Your task to perform on an android device: Search for sushi restaurants on Maps Image 0: 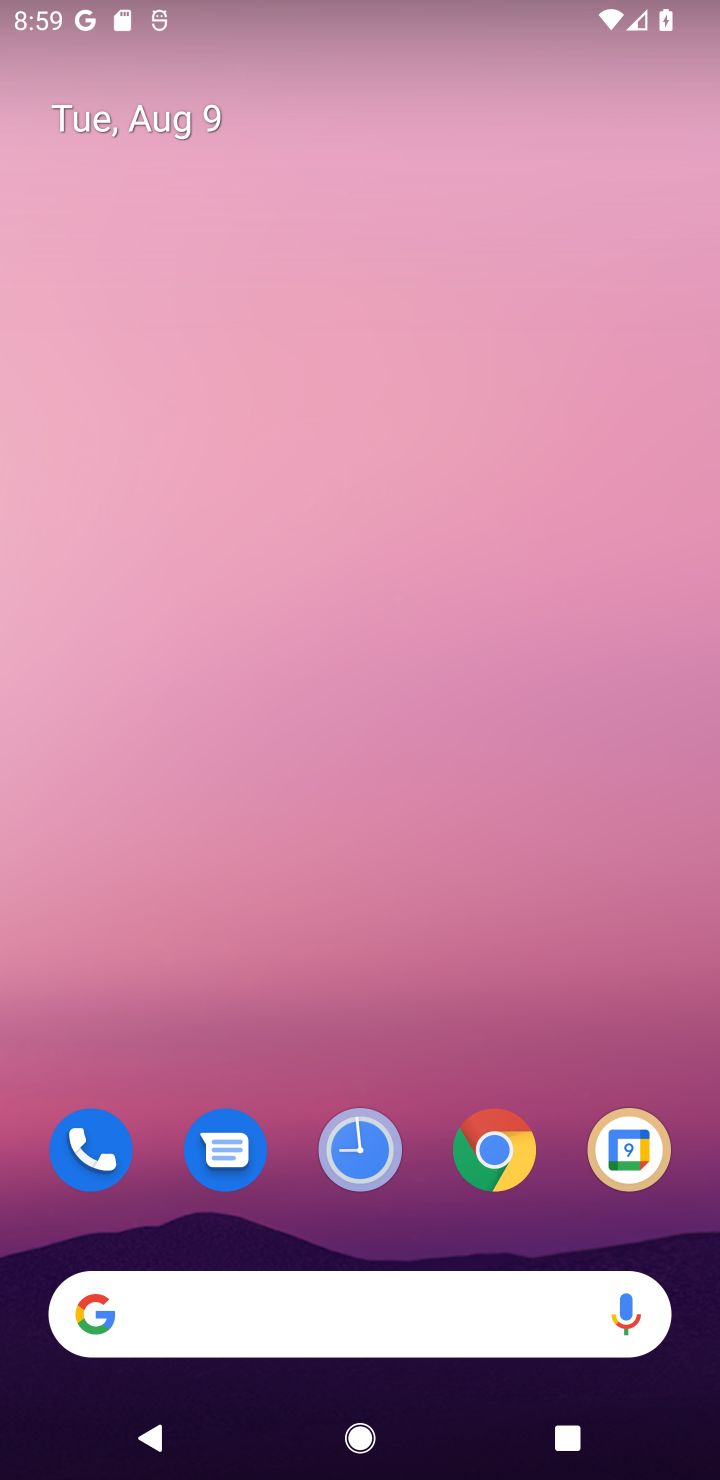
Step 0: drag from (193, 674) to (2, 776)
Your task to perform on an android device: Search for sushi restaurants on Maps Image 1: 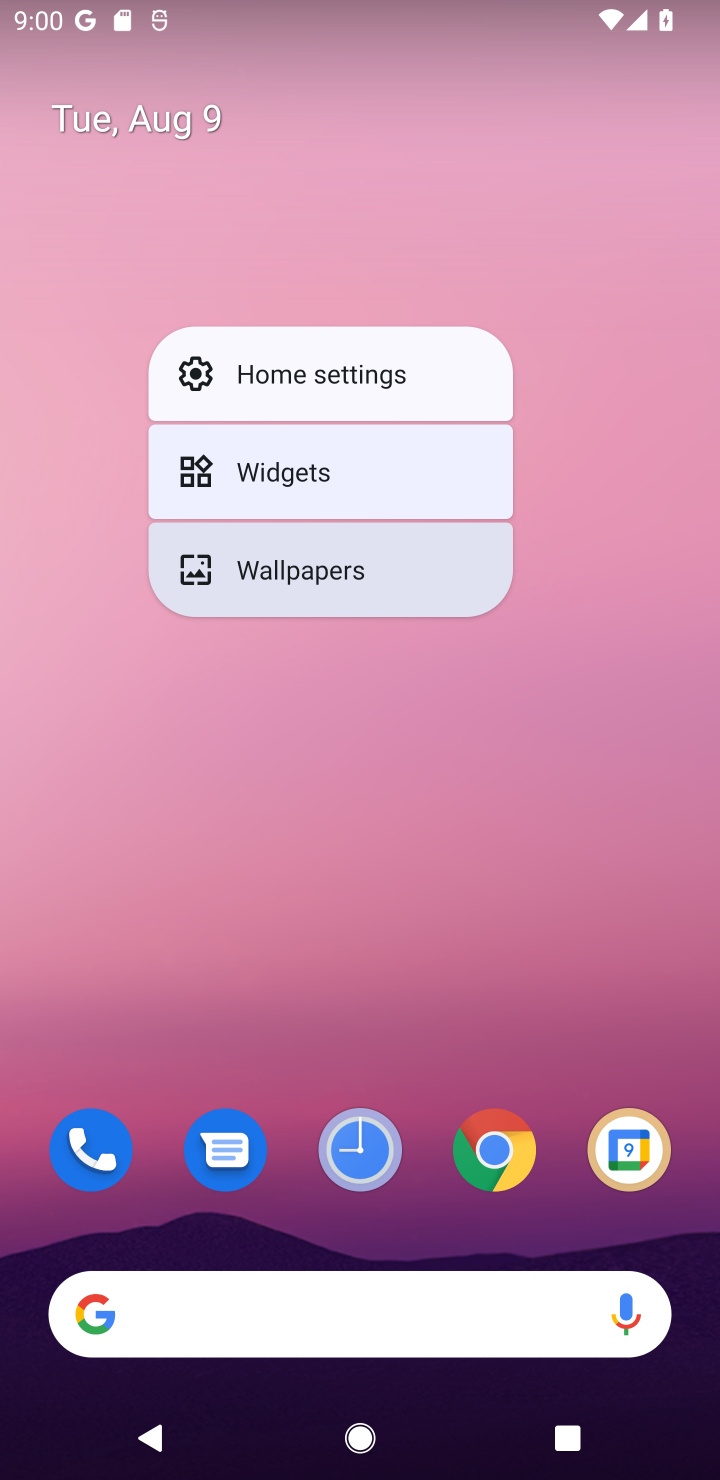
Step 1: drag from (320, 757) to (395, 60)
Your task to perform on an android device: Search for sushi restaurants on Maps Image 2: 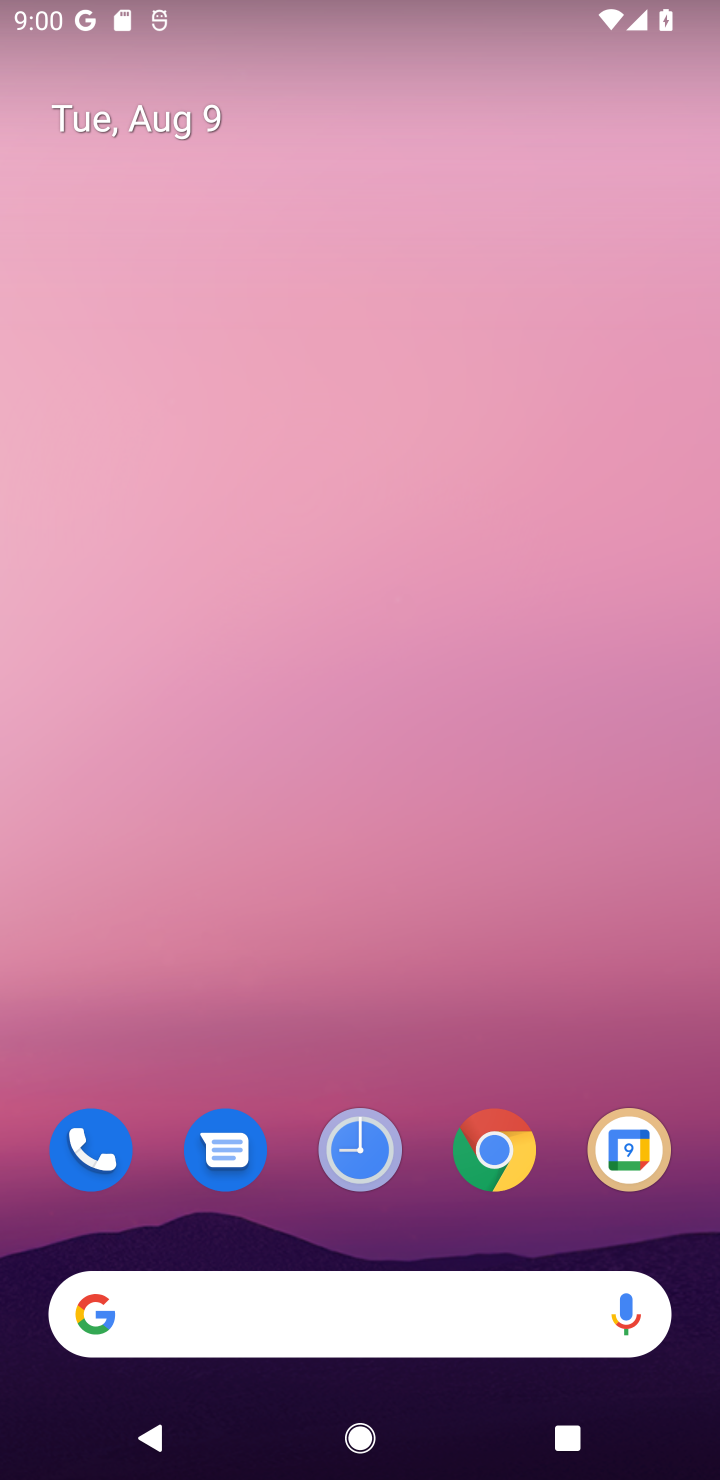
Step 2: drag from (478, 1136) to (585, 20)
Your task to perform on an android device: Search for sushi restaurants on Maps Image 3: 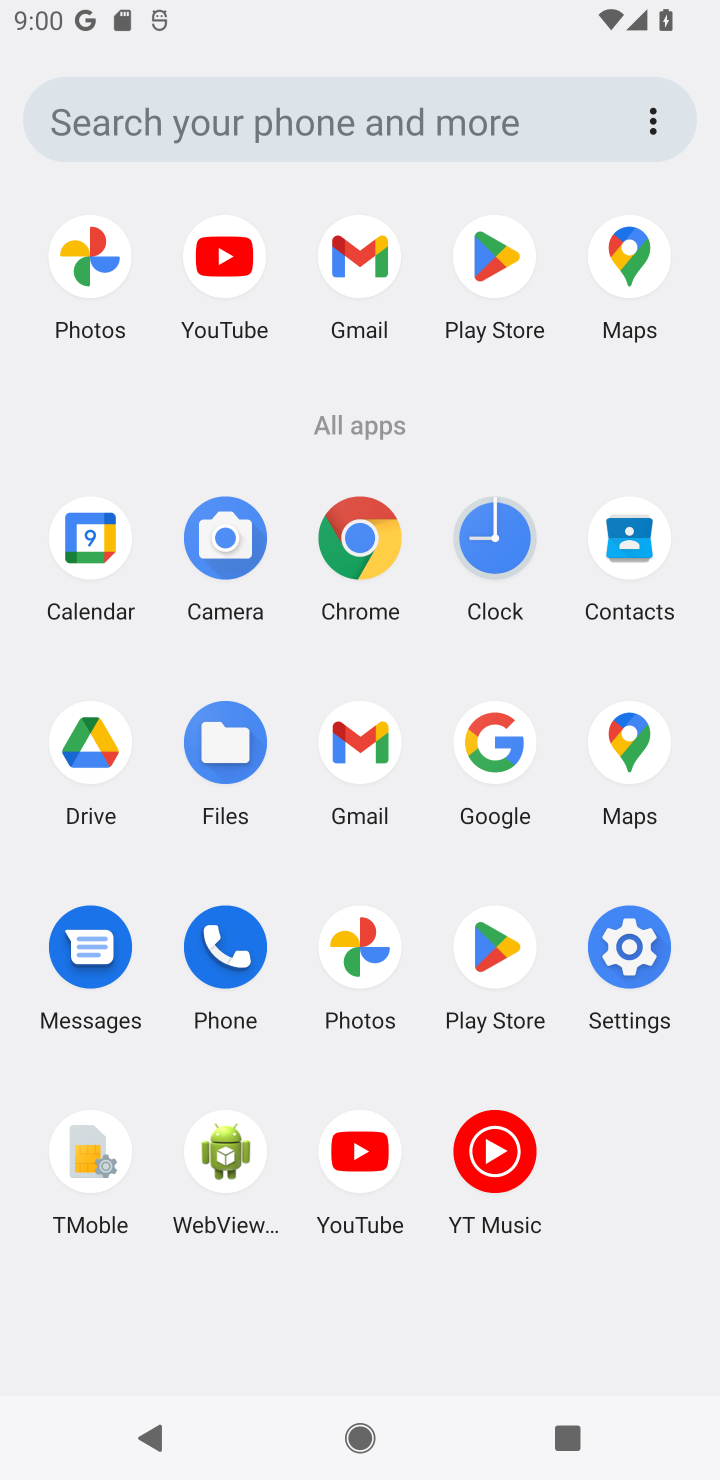
Step 3: click (640, 794)
Your task to perform on an android device: Search for sushi restaurants on Maps Image 4: 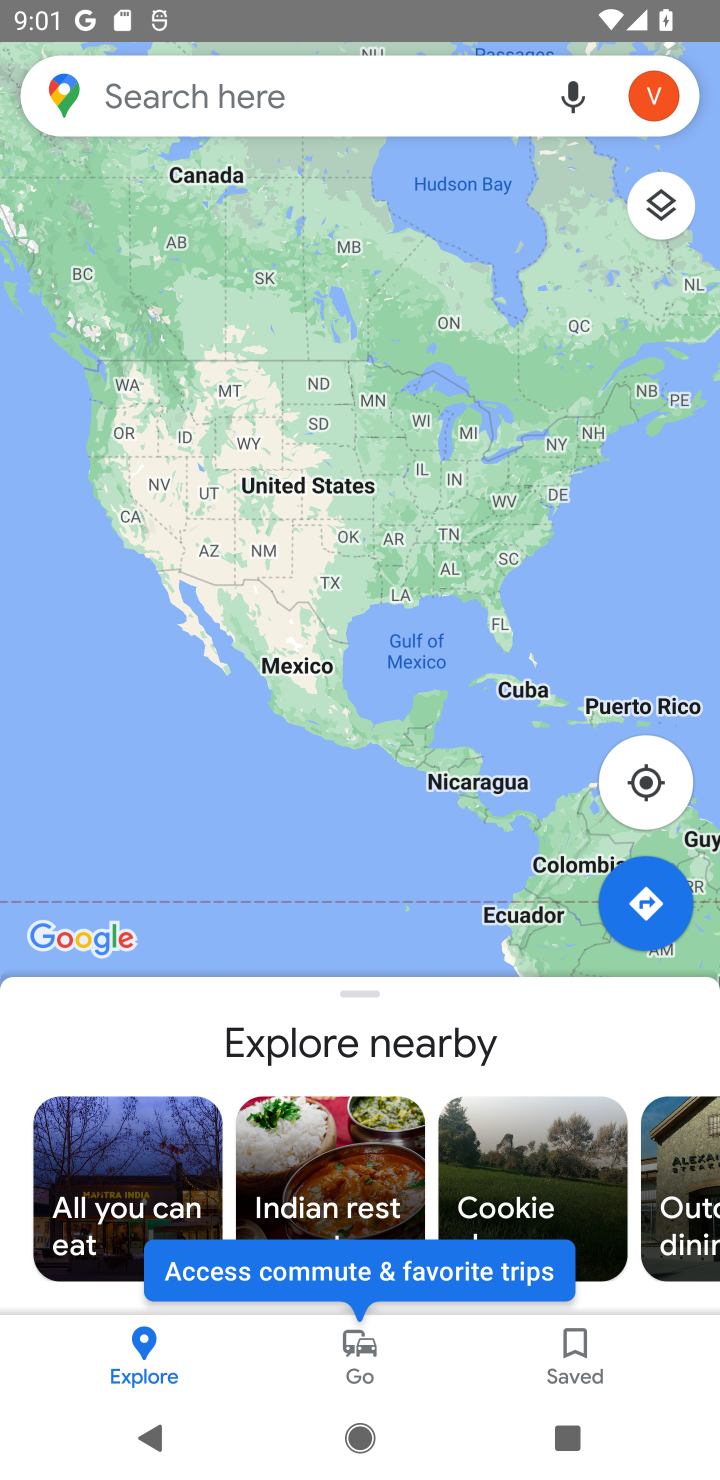
Step 4: click (455, 132)
Your task to perform on an android device: Search for sushi restaurants on Maps Image 5: 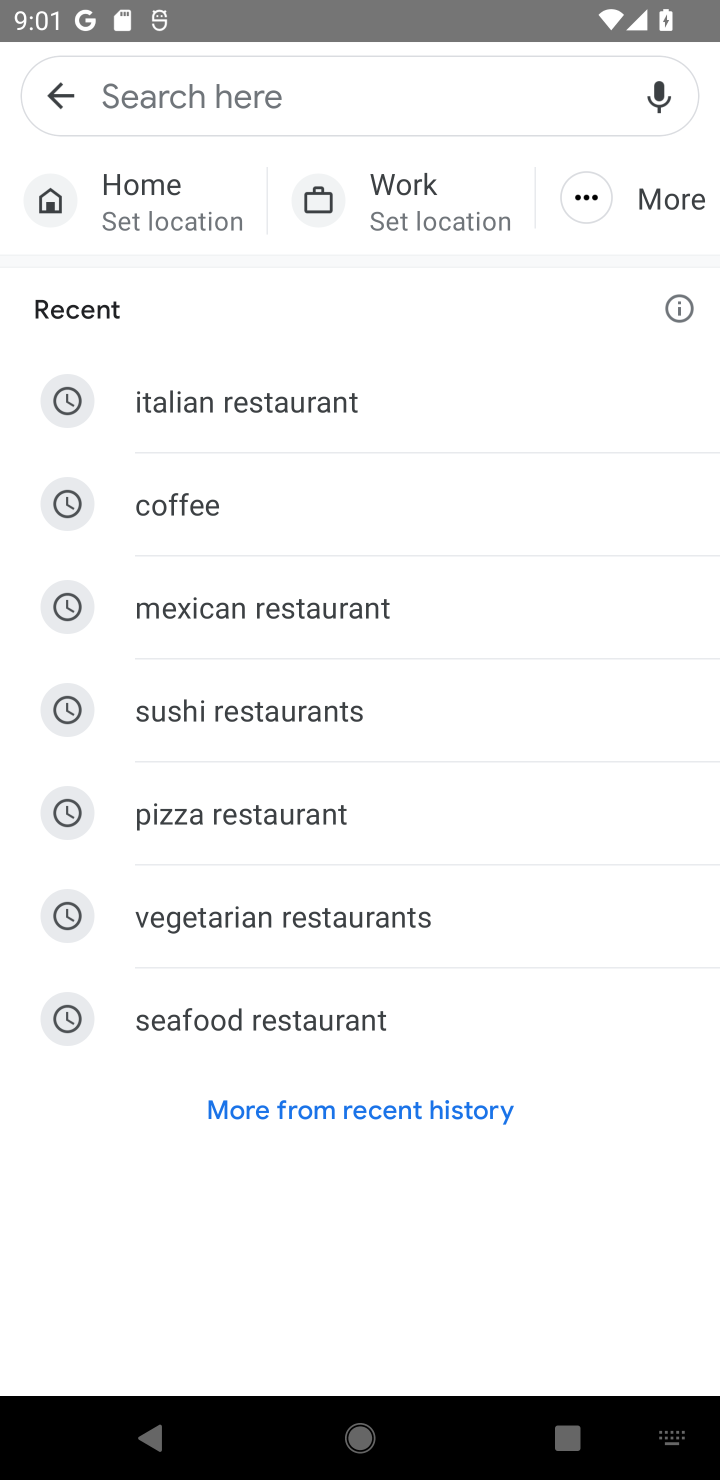
Step 5: click (454, 721)
Your task to perform on an android device: Search for sushi restaurants on Maps Image 6: 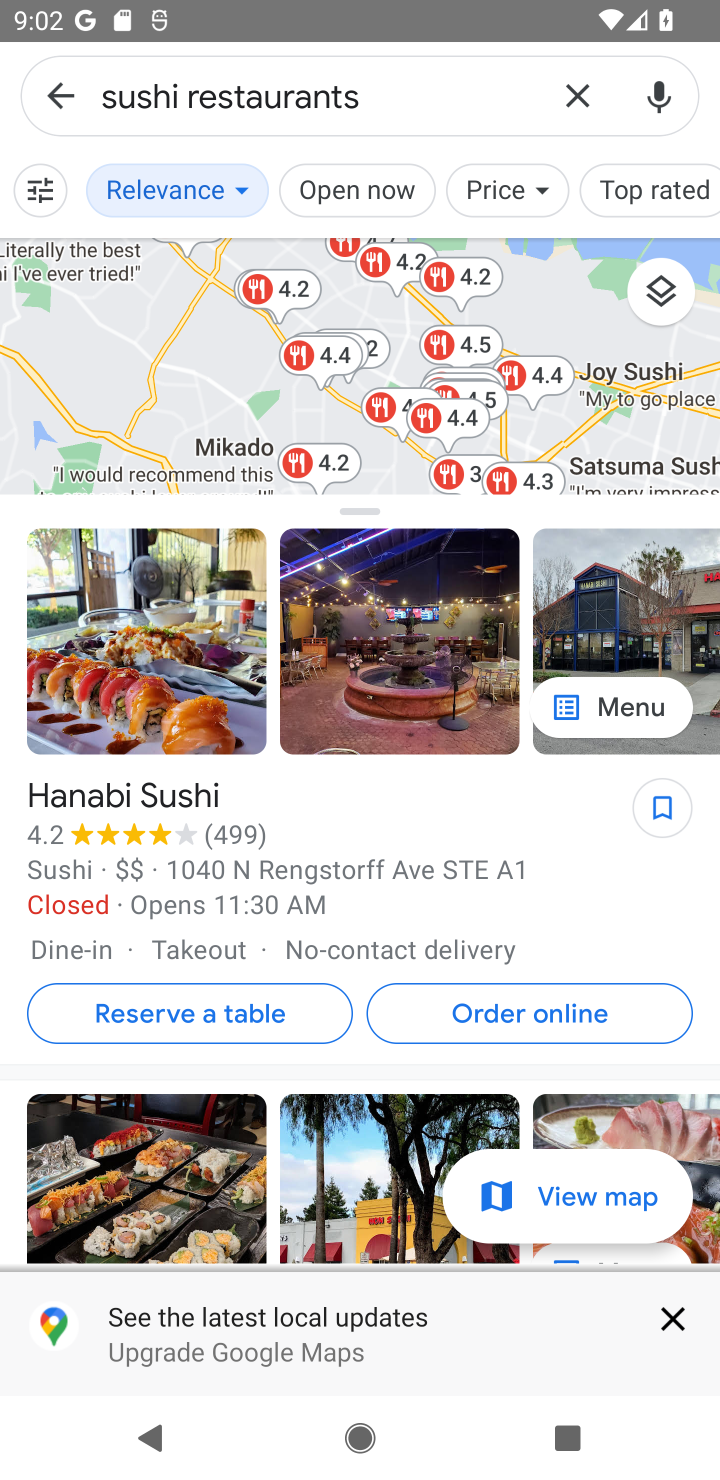
Step 6: task complete